Your task to perform on an android device: toggle data saver in the chrome app Image 0: 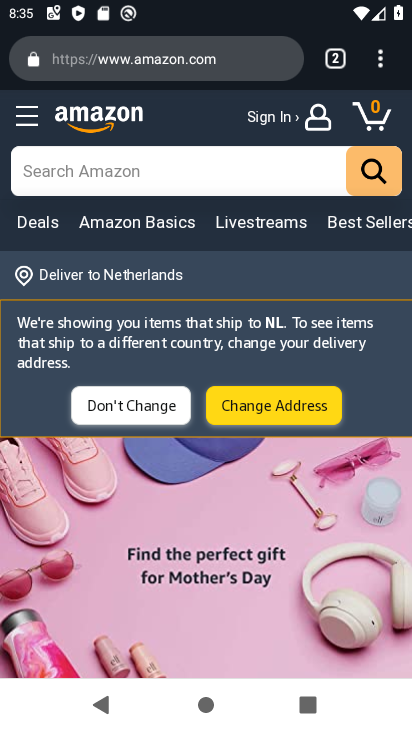
Step 0: press home button
Your task to perform on an android device: toggle data saver in the chrome app Image 1: 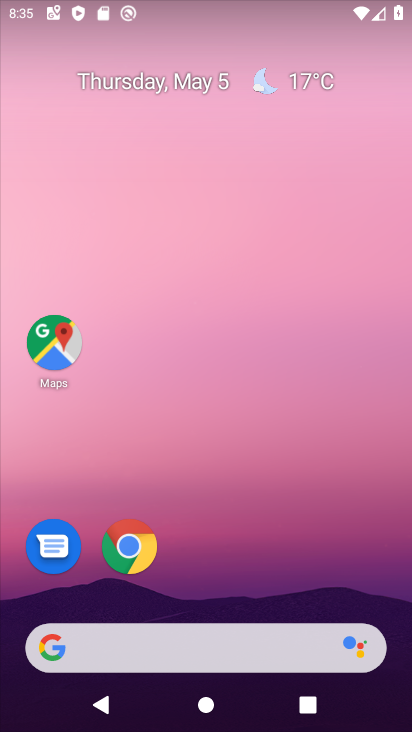
Step 1: drag from (161, 655) to (222, 150)
Your task to perform on an android device: toggle data saver in the chrome app Image 2: 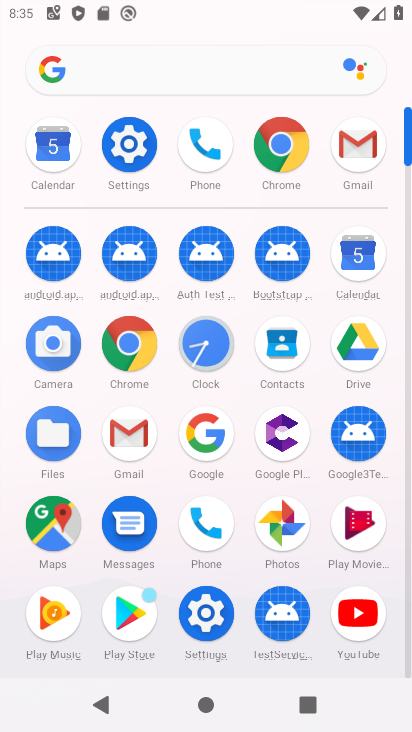
Step 2: click (274, 162)
Your task to perform on an android device: toggle data saver in the chrome app Image 3: 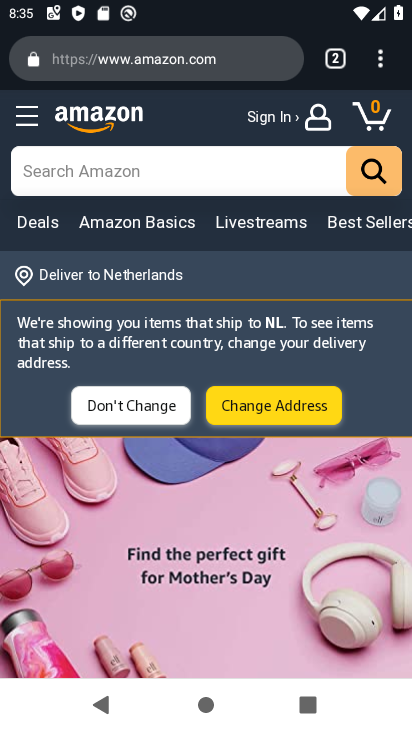
Step 3: drag from (380, 66) to (184, 576)
Your task to perform on an android device: toggle data saver in the chrome app Image 4: 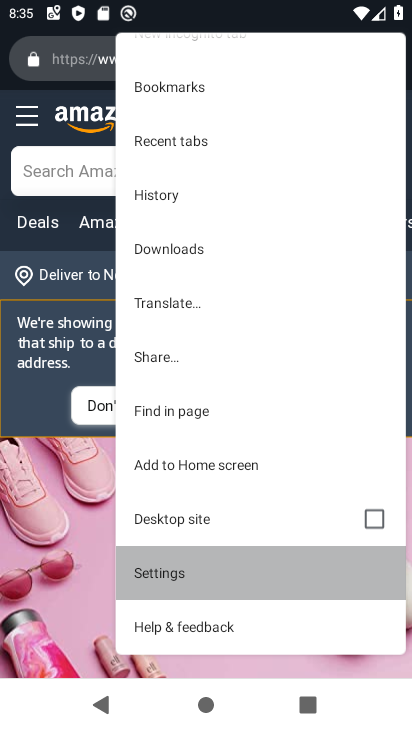
Step 4: click (184, 576)
Your task to perform on an android device: toggle data saver in the chrome app Image 5: 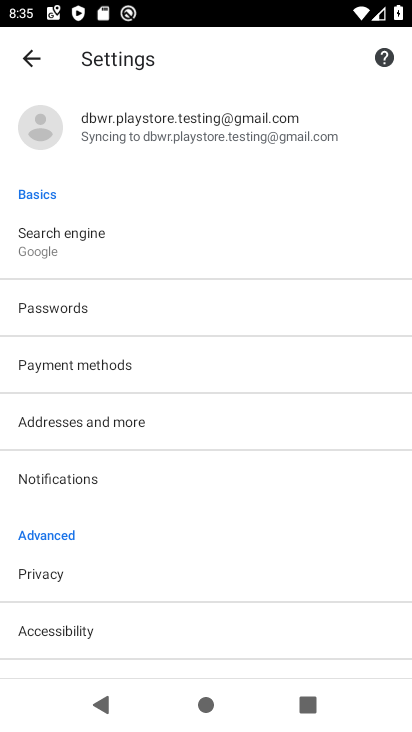
Step 5: drag from (116, 628) to (282, 161)
Your task to perform on an android device: toggle data saver in the chrome app Image 6: 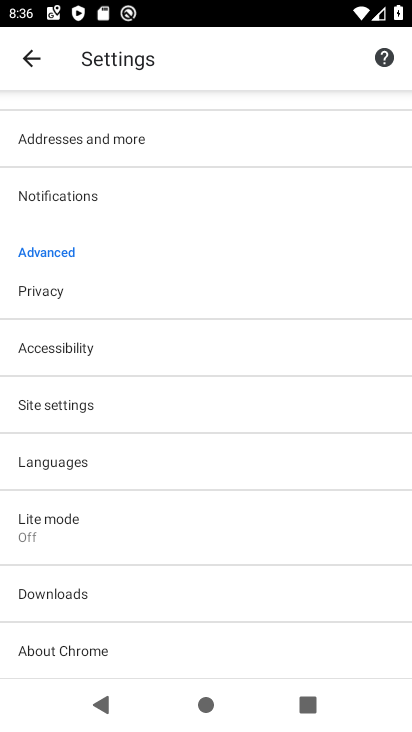
Step 6: click (152, 534)
Your task to perform on an android device: toggle data saver in the chrome app Image 7: 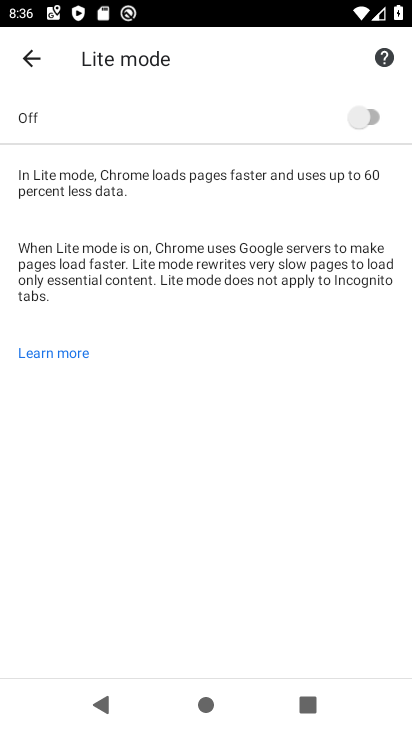
Step 7: click (372, 116)
Your task to perform on an android device: toggle data saver in the chrome app Image 8: 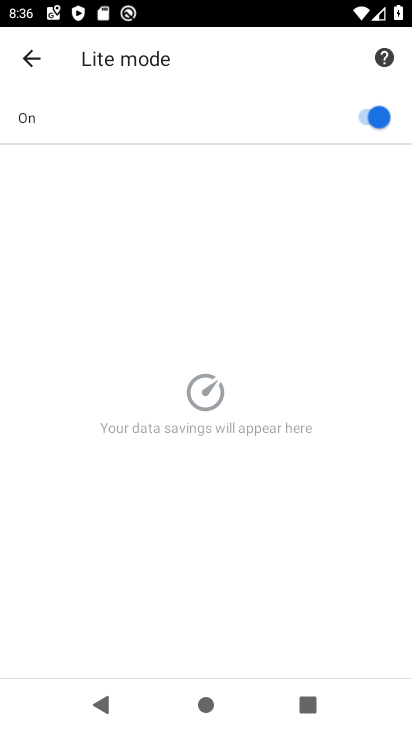
Step 8: task complete